Your task to perform on an android device: all mails in gmail Image 0: 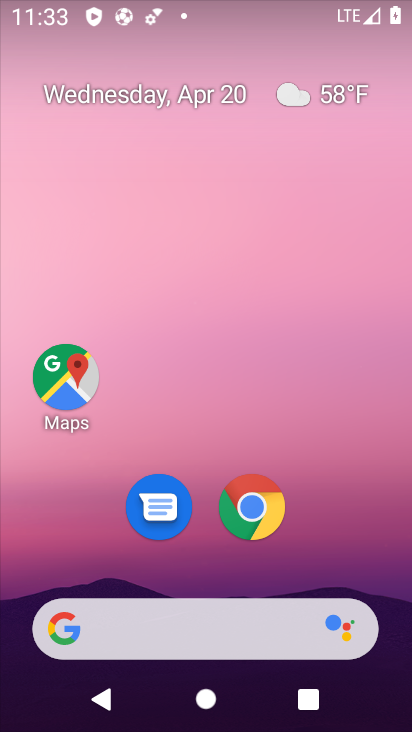
Step 0: drag from (352, 538) to (362, 113)
Your task to perform on an android device: all mails in gmail Image 1: 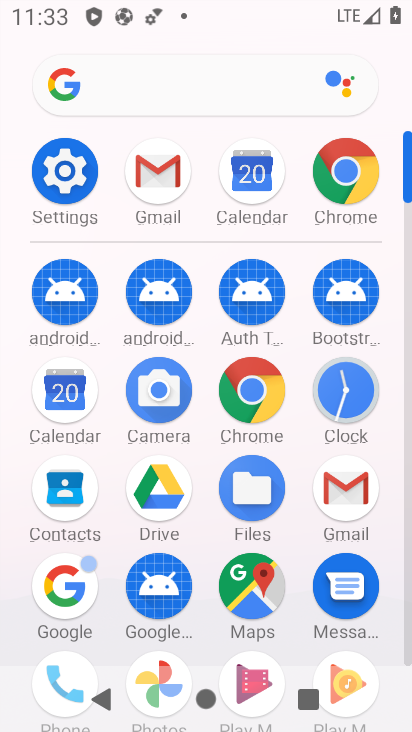
Step 1: click (357, 489)
Your task to perform on an android device: all mails in gmail Image 2: 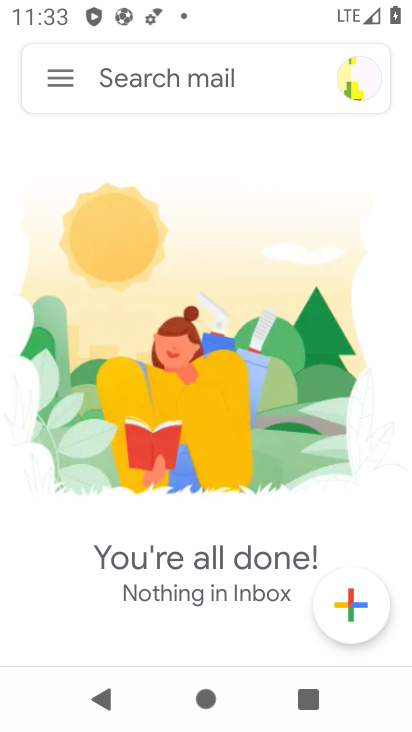
Step 2: click (62, 81)
Your task to perform on an android device: all mails in gmail Image 3: 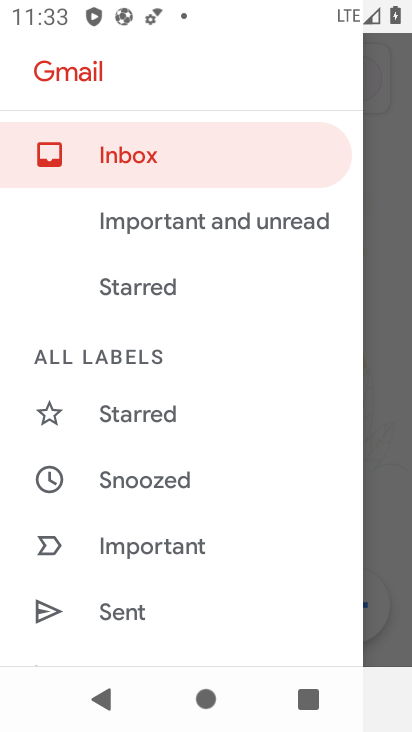
Step 3: drag from (289, 539) to (296, 340)
Your task to perform on an android device: all mails in gmail Image 4: 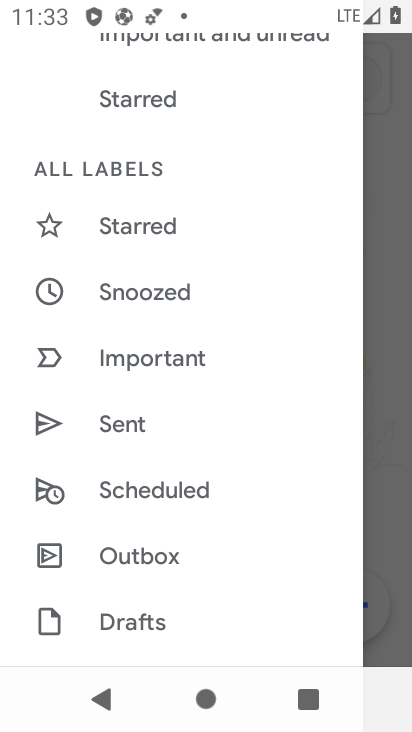
Step 4: drag from (298, 572) to (294, 352)
Your task to perform on an android device: all mails in gmail Image 5: 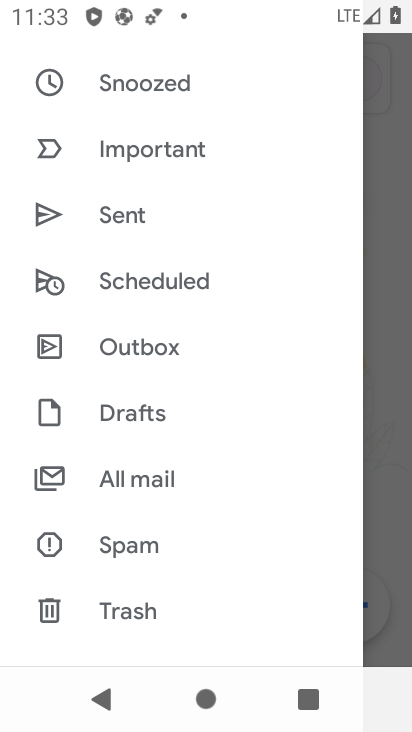
Step 5: drag from (287, 595) to (299, 419)
Your task to perform on an android device: all mails in gmail Image 6: 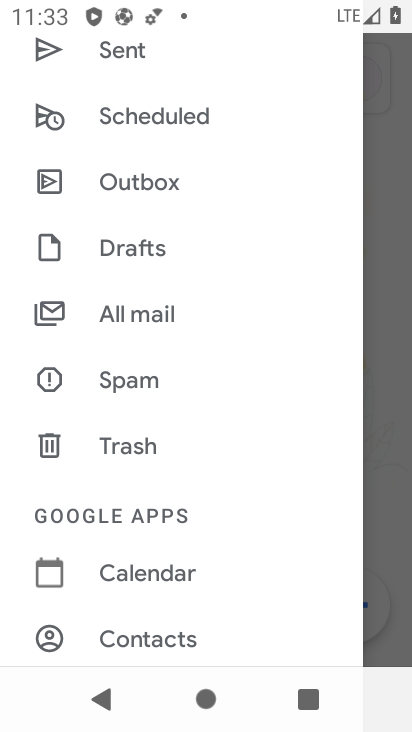
Step 6: drag from (306, 496) to (313, 371)
Your task to perform on an android device: all mails in gmail Image 7: 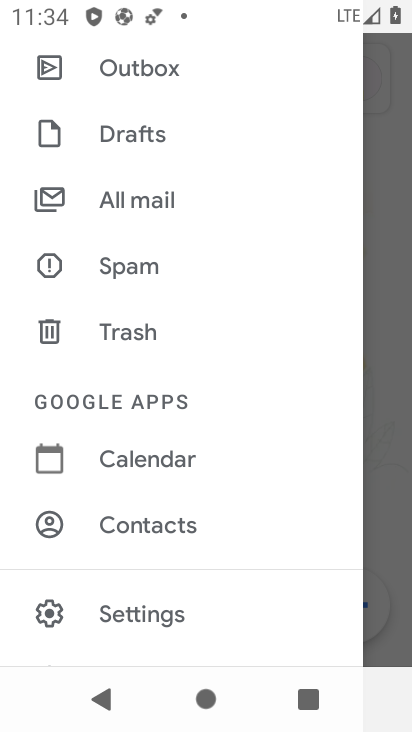
Step 7: drag from (289, 615) to (292, 459)
Your task to perform on an android device: all mails in gmail Image 8: 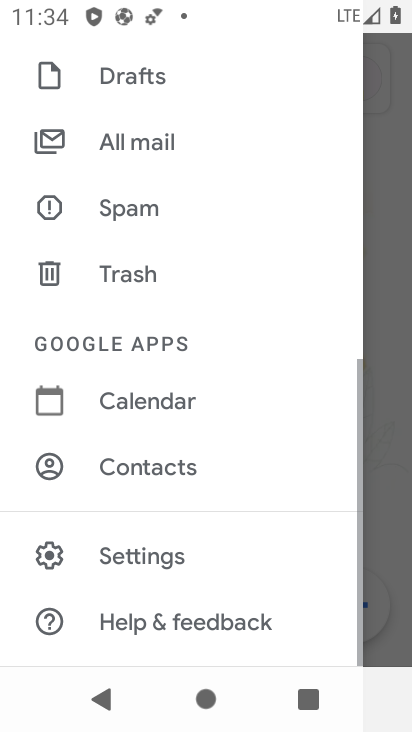
Step 8: drag from (310, 357) to (310, 499)
Your task to perform on an android device: all mails in gmail Image 9: 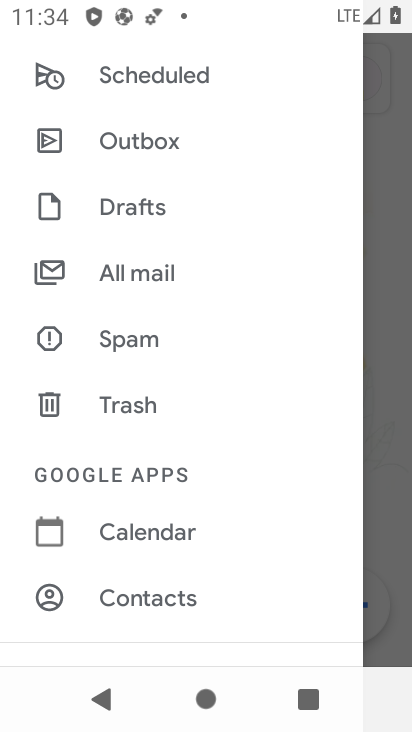
Step 9: drag from (296, 362) to (296, 534)
Your task to perform on an android device: all mails in gmail Image 10: 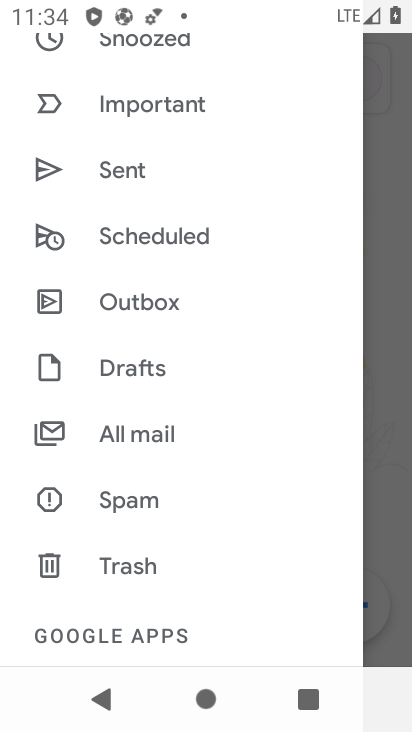
Step 10: drag from (289, 375) to (283, 512)
Your task to perform on an android device: all mails in gmail Image 11: 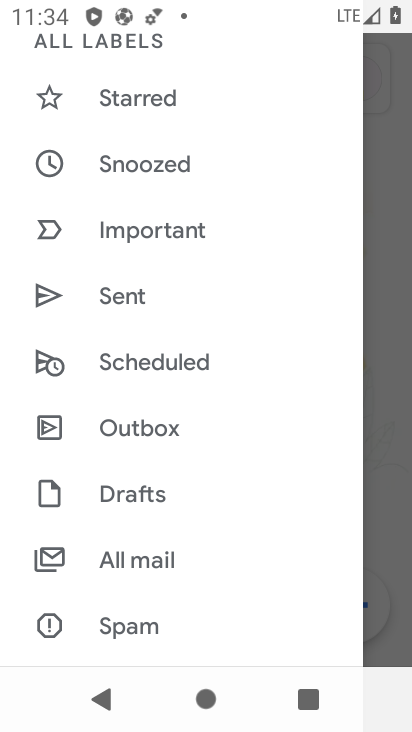
Step 11: click (167, 558)
Your task to perform on an android device: all mails in gmail Image 12: 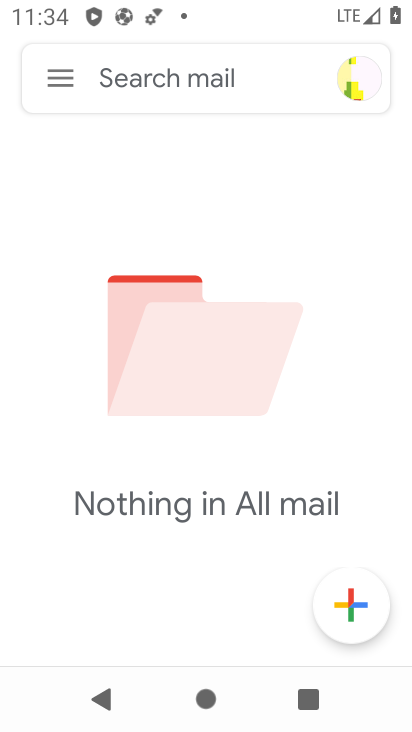
Step 12: task complete